Your task to perform on an android device: Open Chrome and go to settings Image 0: 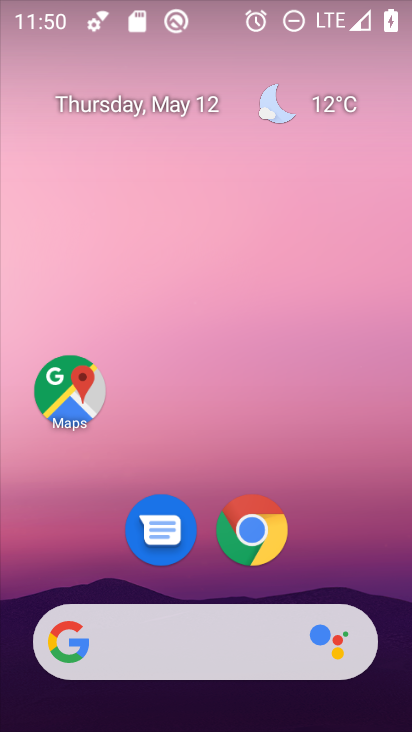
Step 0: click (243, 541)
Your task to perform on an android device: Open Chrome and go to settings Image 1: 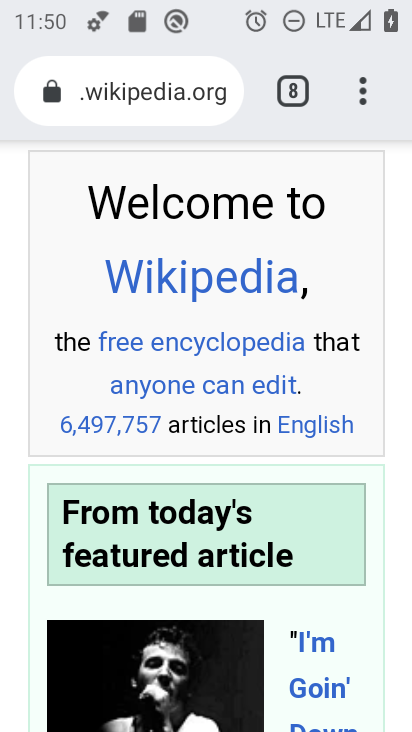
Step 1: task complete